Your task to perform on an android device: toggle wifi Image 0: 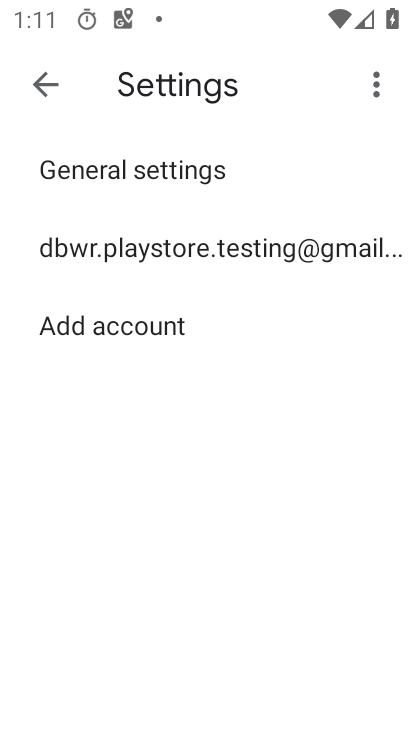
Step 0: press home button
Your task to perform on an android device: toggle wifi Image 1: 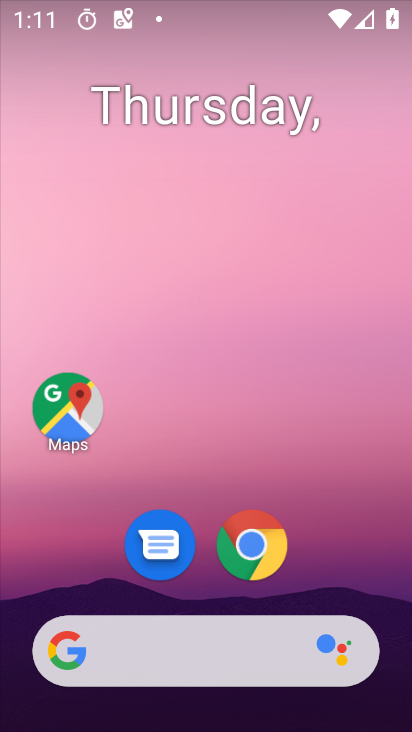
Step 1: drag from (237, 649) to (269, 0)
Your task to perform on an android device: toggle wifi Image 2: 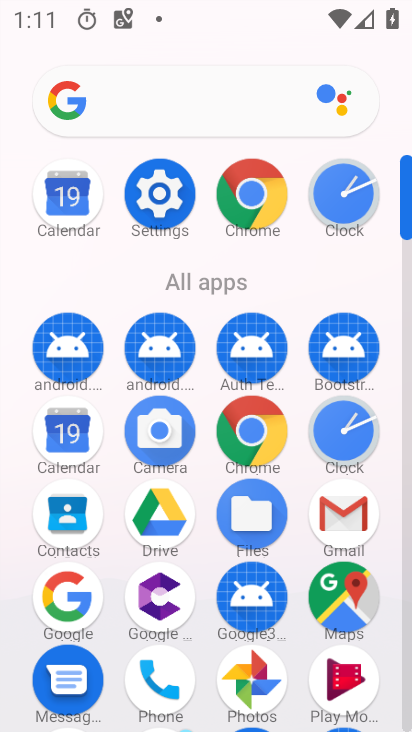
Step 2: click (154, 192)
Your task to perform on an android device: toggle wifi Image 3: 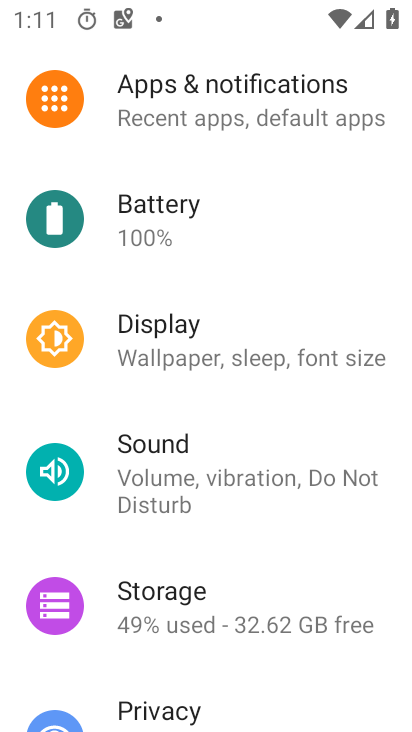
Step 3: drag from (202, 170) to (221, 684)
Your task to perform on an android device: toggle wifi Image 4: 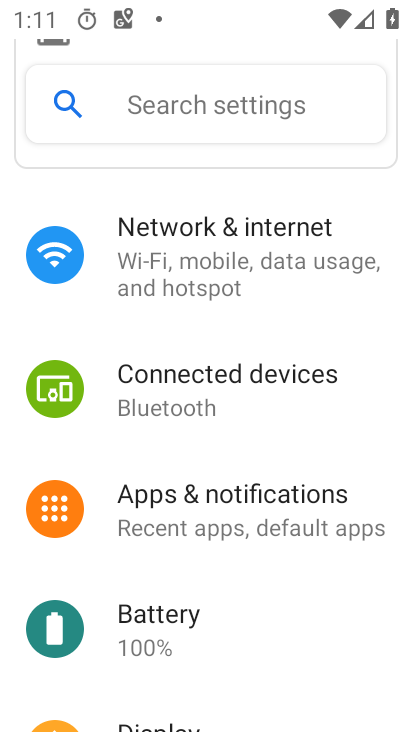
Step 4: click (244, 241)
Your task to perform on an android device: toggle wifi Image 5: 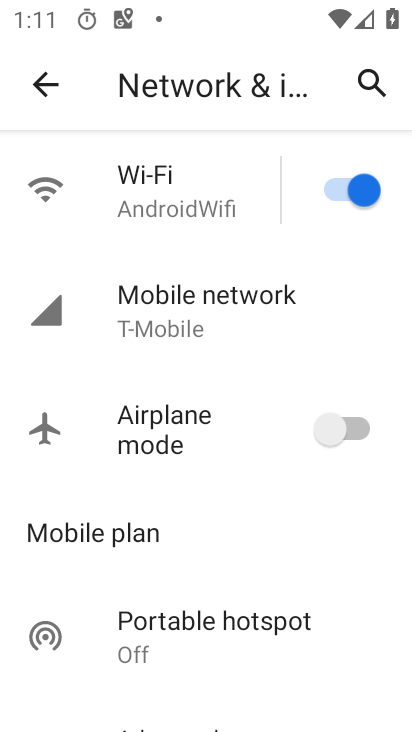
Step 5: click (336, 185)
Your task to perform on an android device: toggle wifi Image 6: 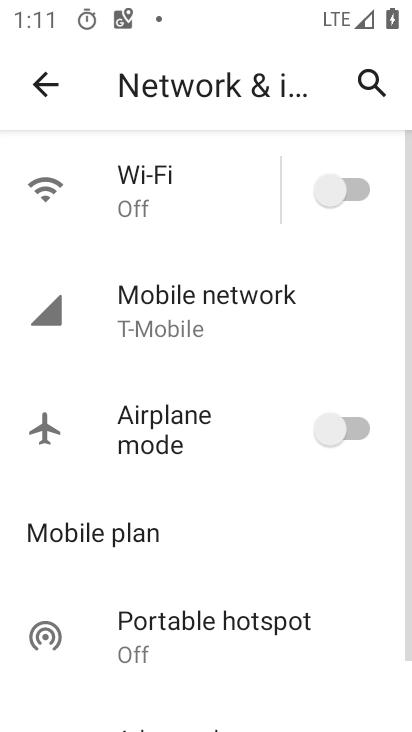
Step 6: task complete